Your task to perform on an android device: delete location history Image 0: 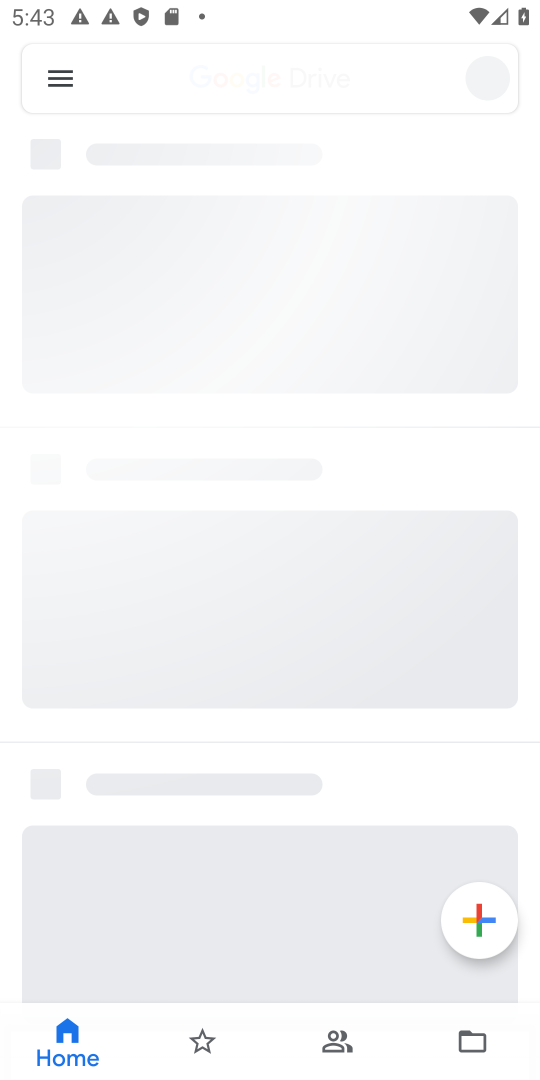
Step 0: press home button
Your task to perform on an android device: delete location history Image 1: 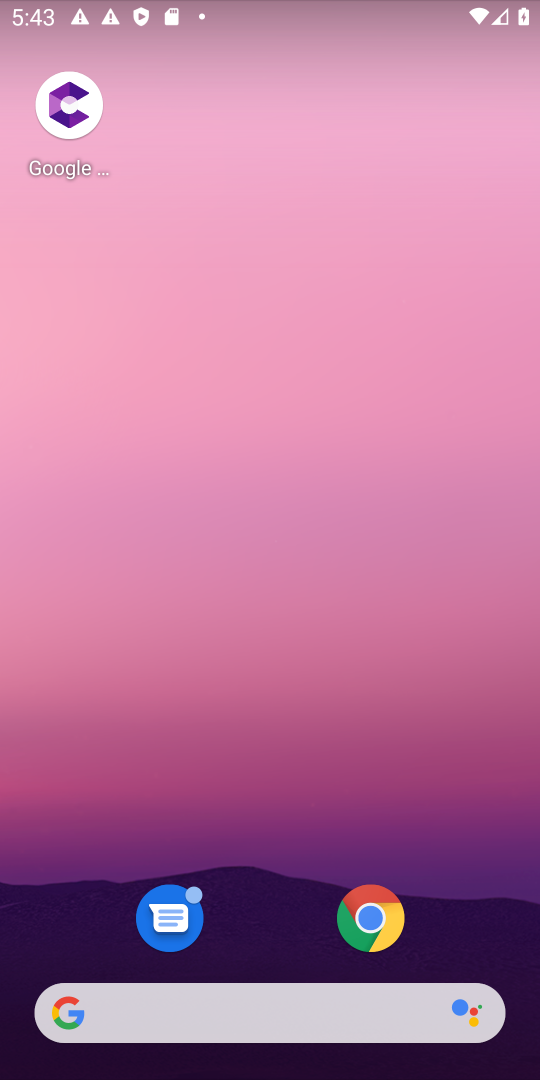
Step 1: drag from (249, 809) to (311, 95)
Your task to perform on an android device: delete location history Image 2: 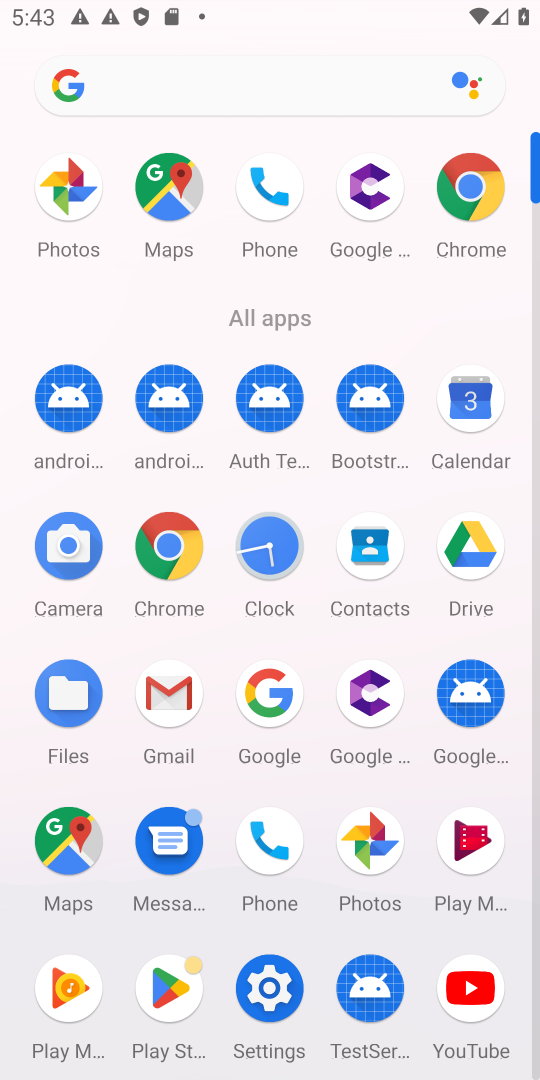
Step 2: click (168, 199)
Your task to perform on an android device: delete location history Image 3: 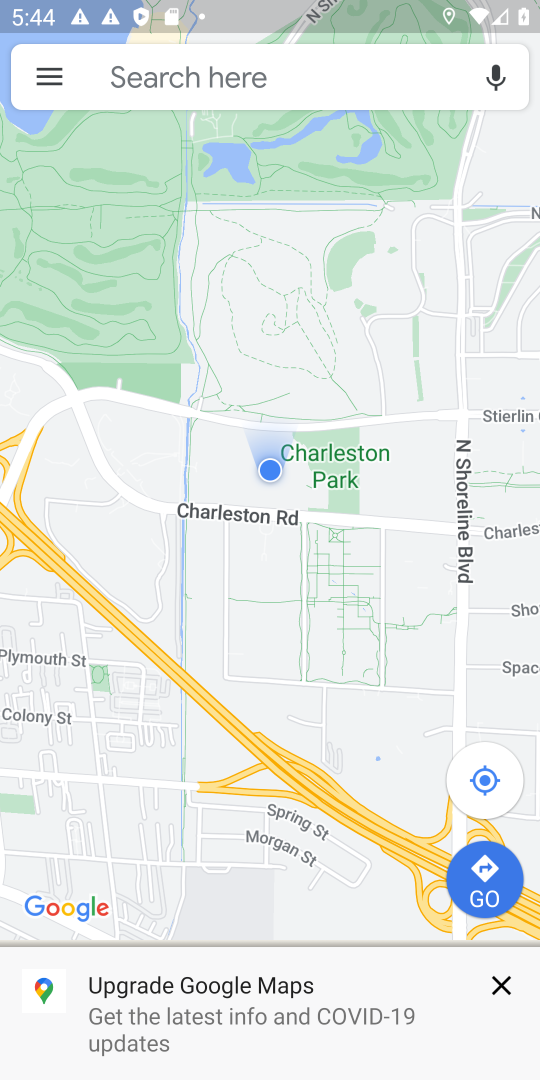
Step 3: click (48, 70)
Your task to perform on an android device: delete location history Image 4: 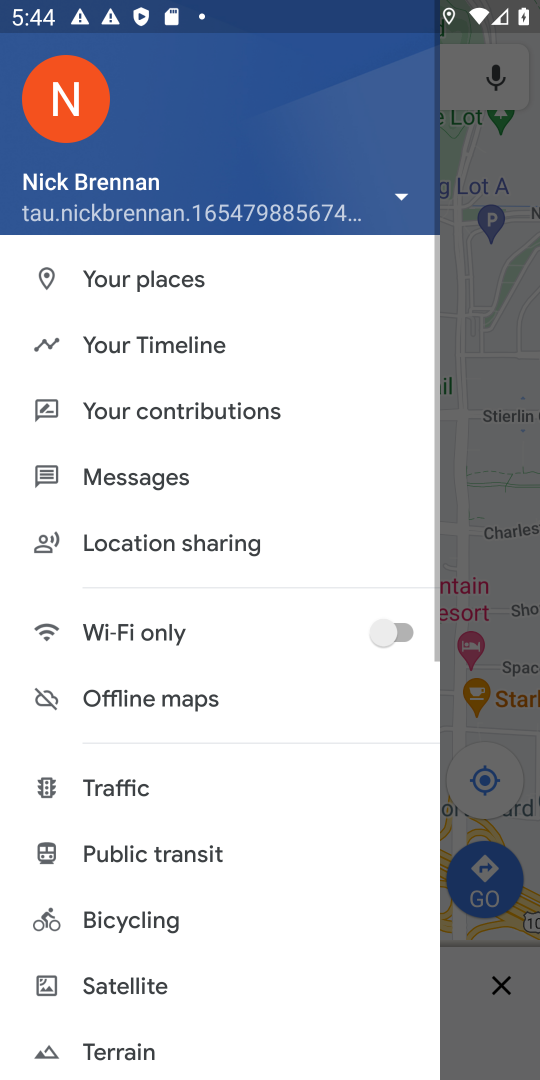
Step 4: click (166, 359)
Your task to perform on an android device: delete location history Image 5: 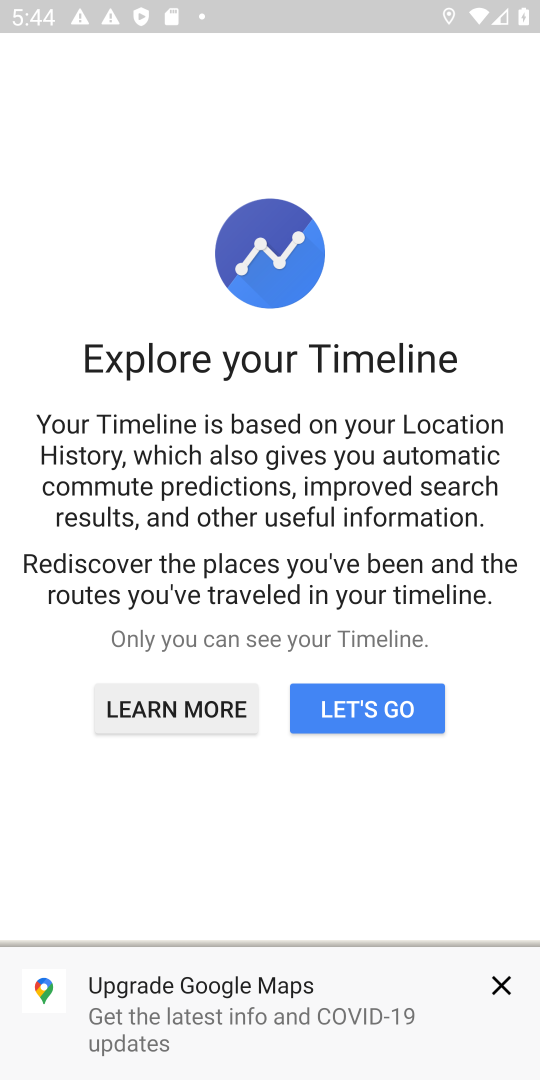
Step 5: click (325, 699)
Your task to perform on an android device: delete location history Image 6: 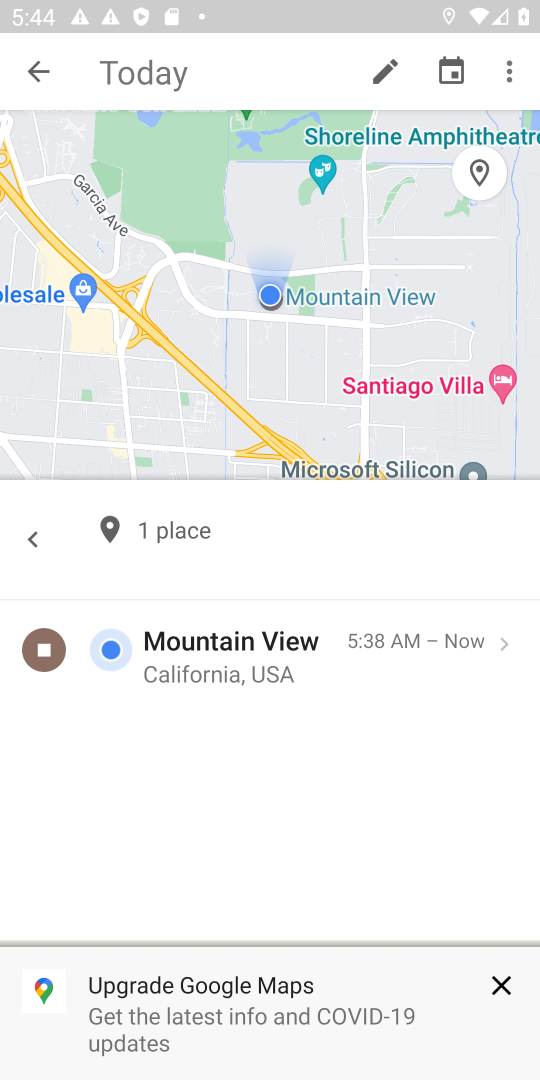
Step 6: click (504, 78)
Your task to perform on an android device: delete location history Image 7: 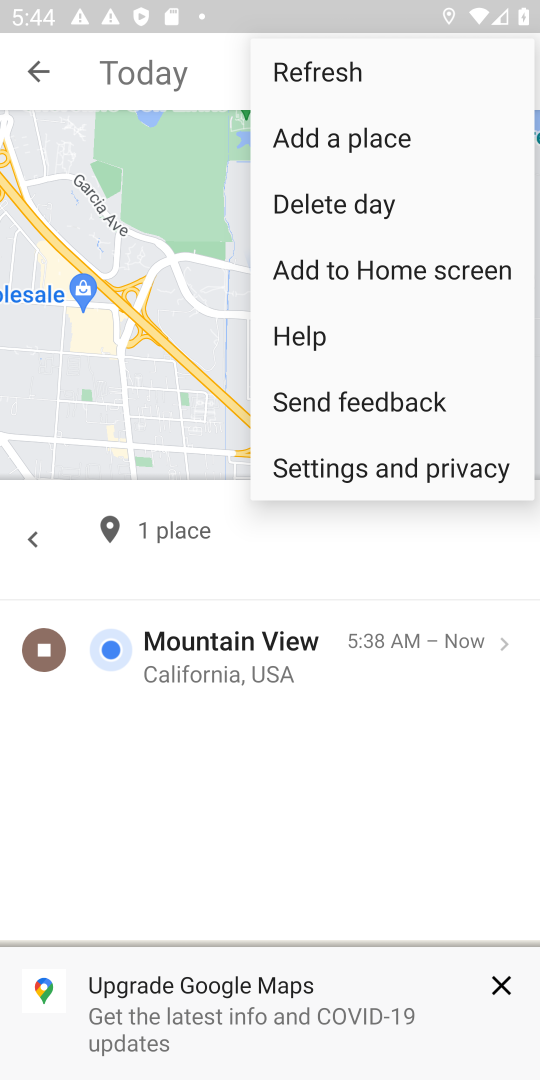
Step 7: click (340, 468)
Your task to perform on an android device: delete location history Image 8: 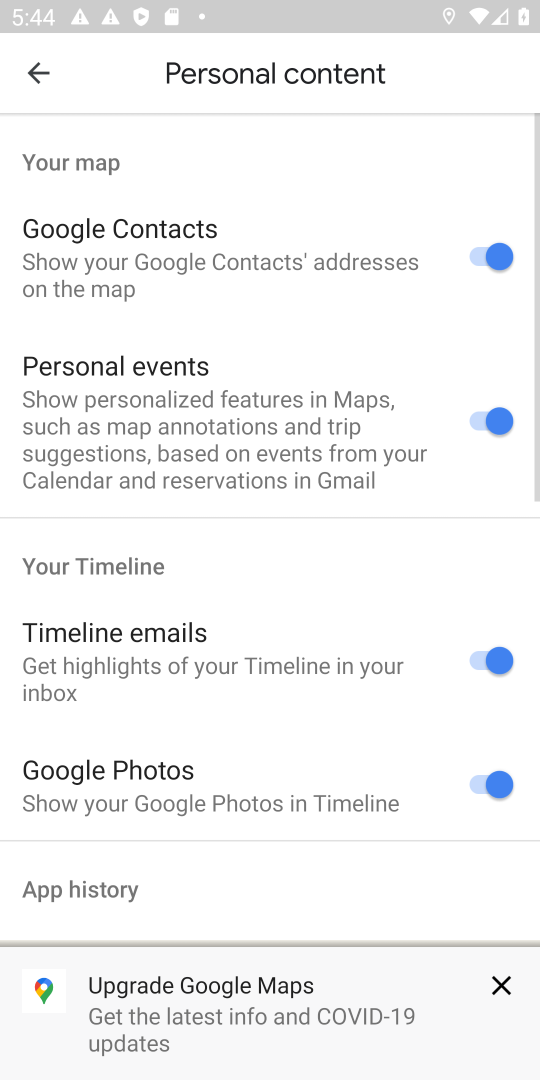
Step 8: drag from (311, 744) to (311, 190)
Your task to perform on an android device: delete location history Image 9: 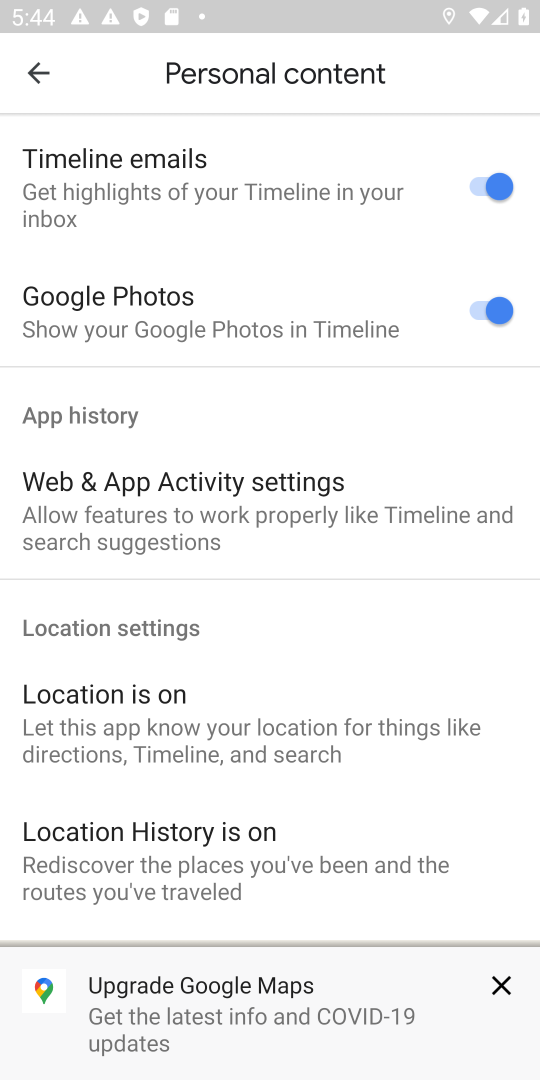
Step 9: drag from (134, 865) to (123, 318)
Your task to perform on an android device: delete location history Image 10: 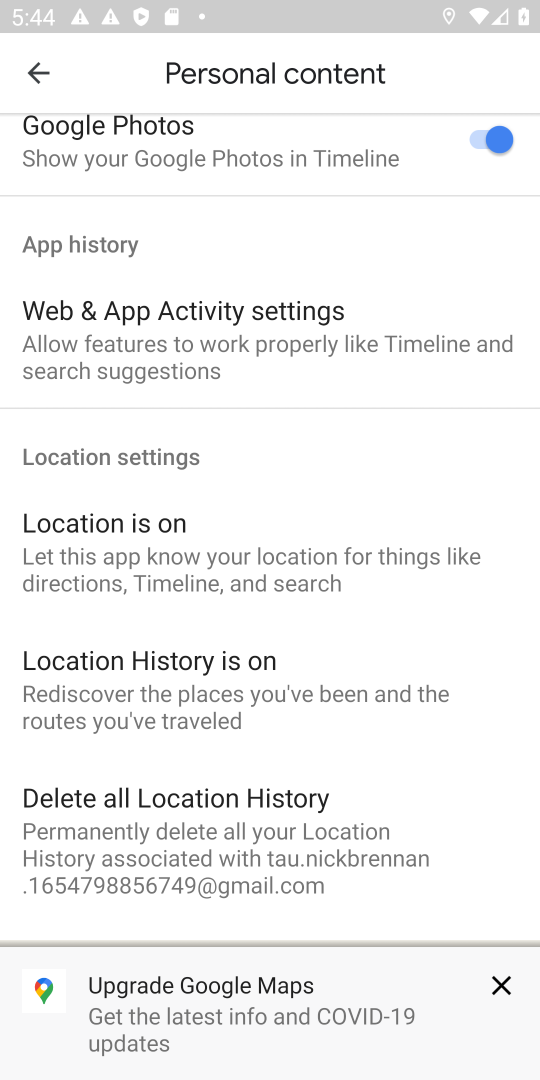
Step 10: click (230, 819)
Your task to perform on an android device: delete location history Image 11: 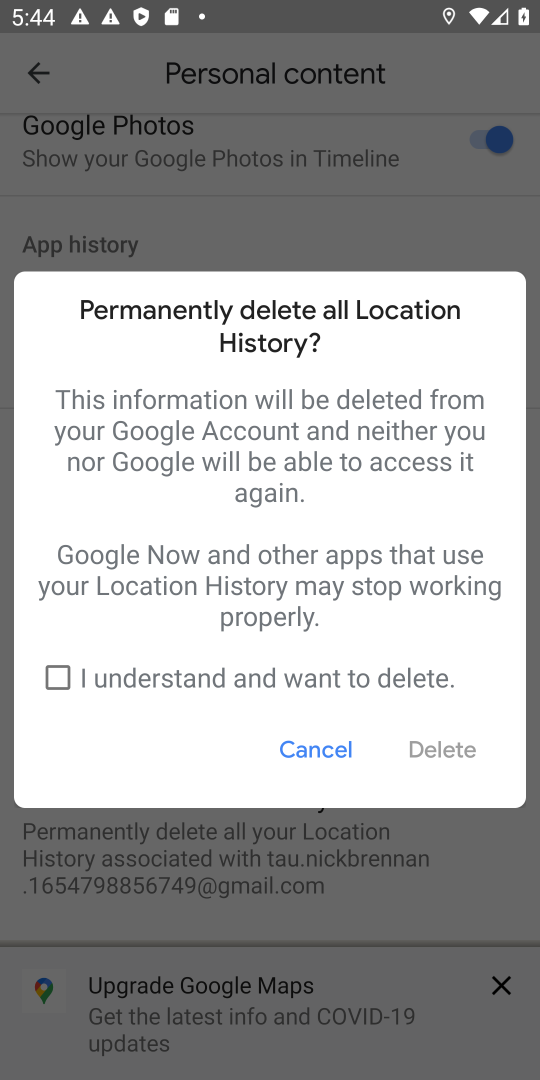
Step 11: click (50, 682)
Your task to perform on an android device: delete location history Image 12: 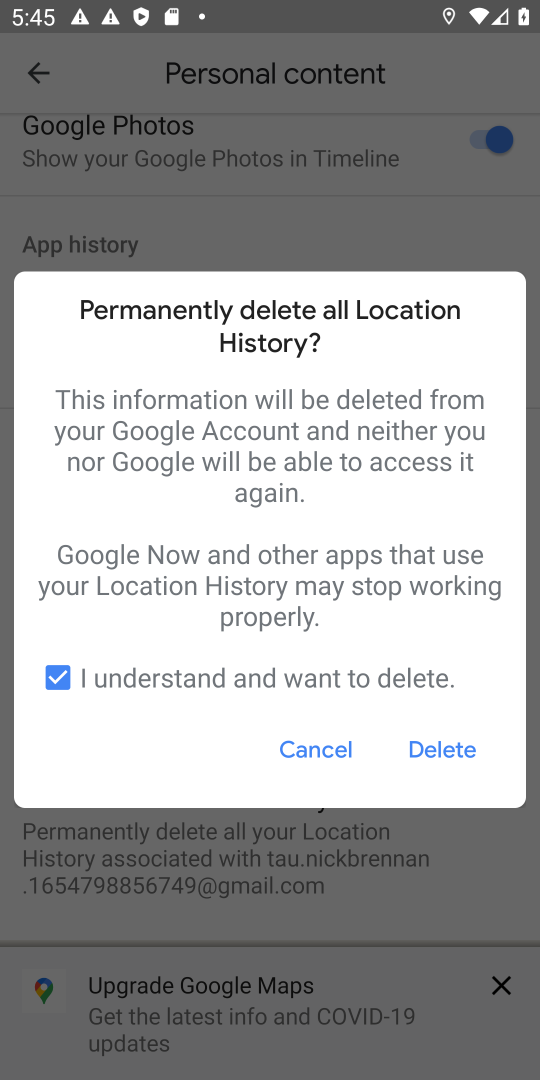
Step 12: click (422, 744)
Your task to perform on an android device: delete location history Image 13: 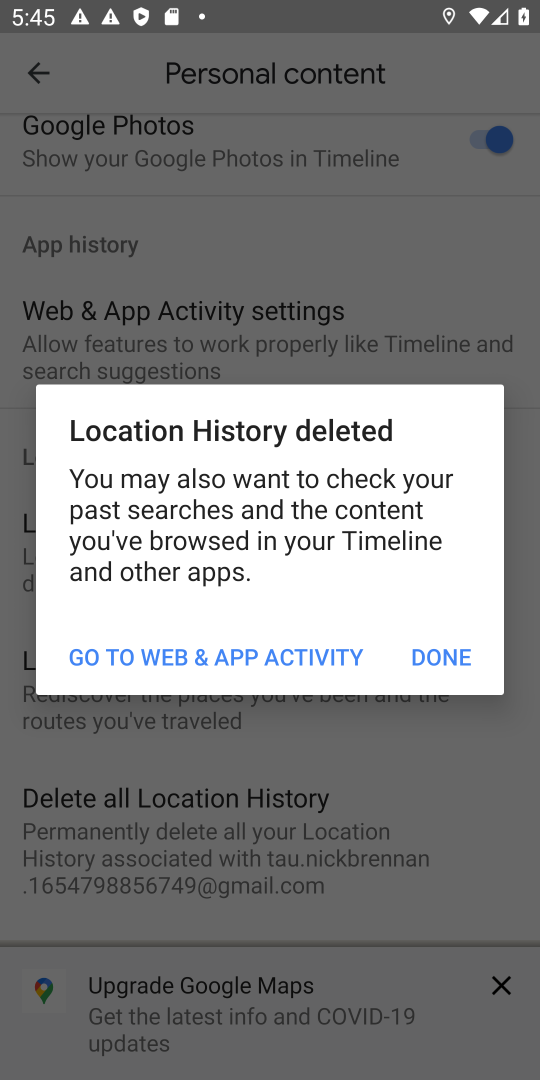
Step 13: click (422, 663)
Your task to perform on an android device: delete location history Image 14: 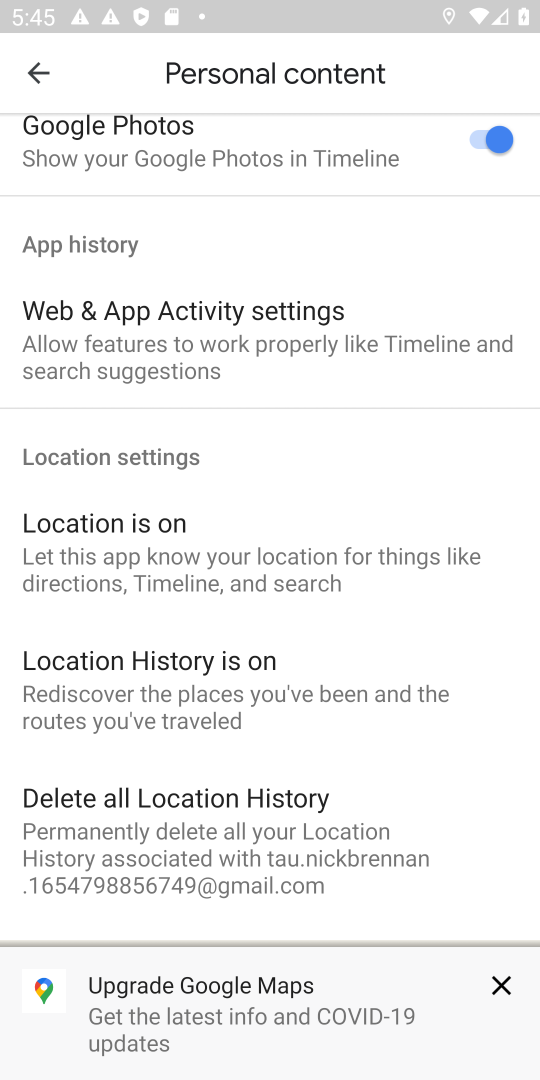
Step 14: task complete